Your task to perform on an android device: Open Google Chrome Image 0: 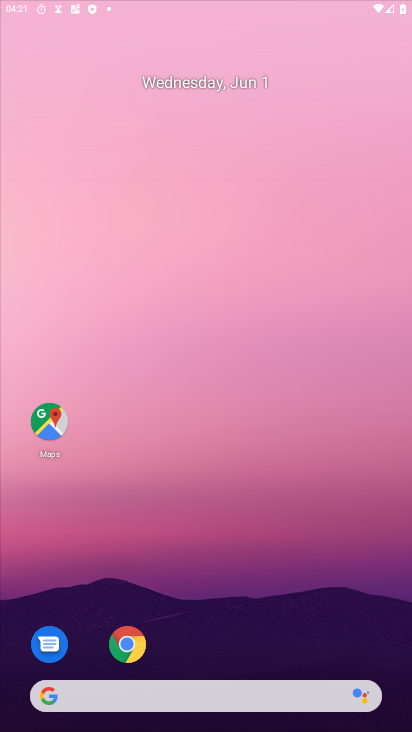
Step 0: press home button
Your task to perform on an android device: Open Google Chrome Image 1: 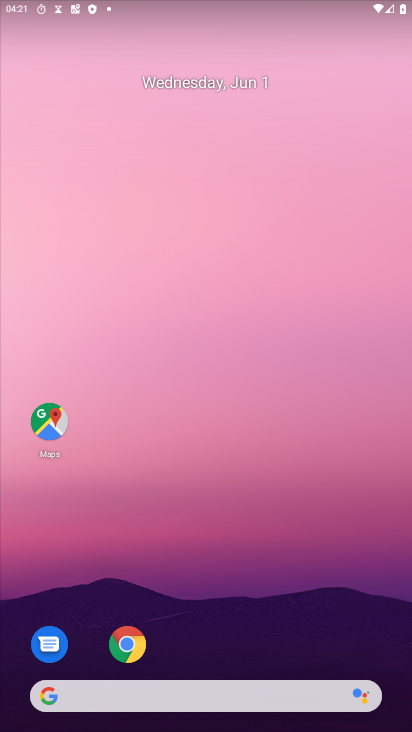
Step 1: click (128, 645)
Your task to perform on an android device: Open Google Chrome Image 2: 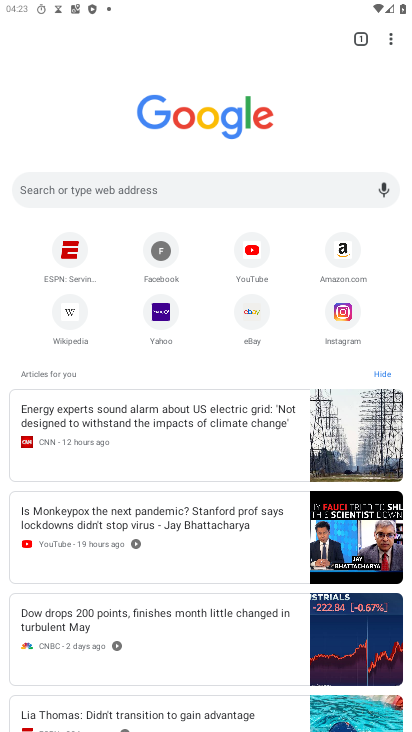
Step 2: task complete